Your task to perform on an android device: toggle notification dots Image 0: 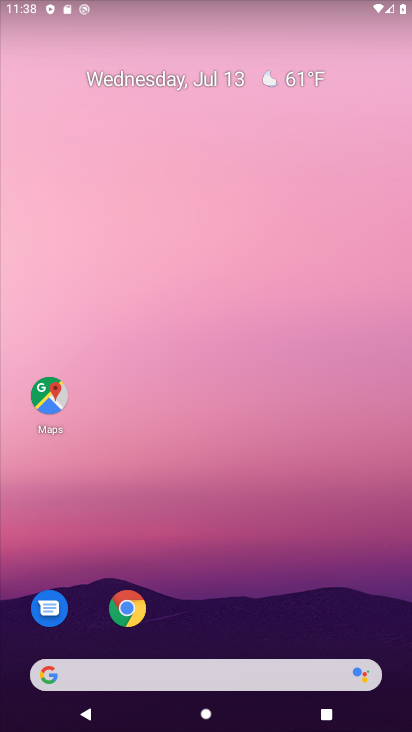
Step 0: click (152, 193)
Your task to perform on an android device: toggle notification dots Image 1: 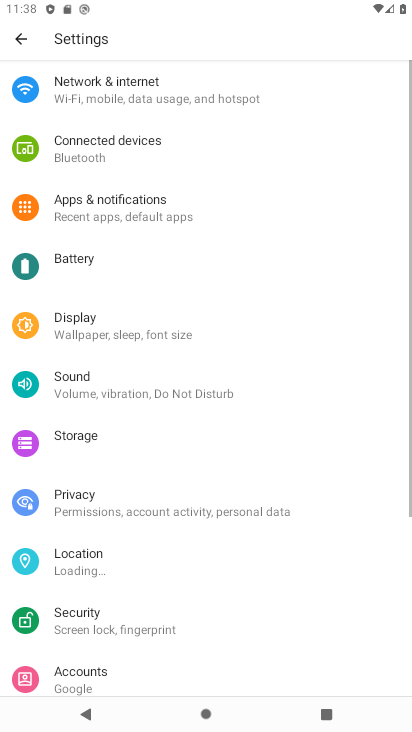
Step 1: drag from (167, 642) to (185, 338)
Your task to perform on an android device: toggle notification dots Image 2: 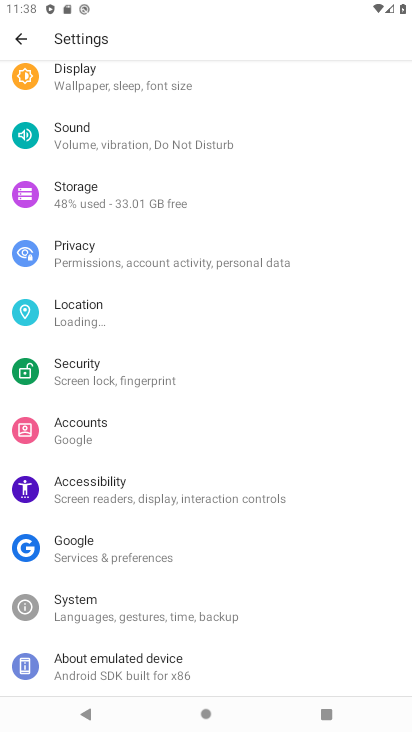
Step 2: drag from (200, 530) to (215, 331)
Your task to perform on an android device: toggle notification dots Image 3: 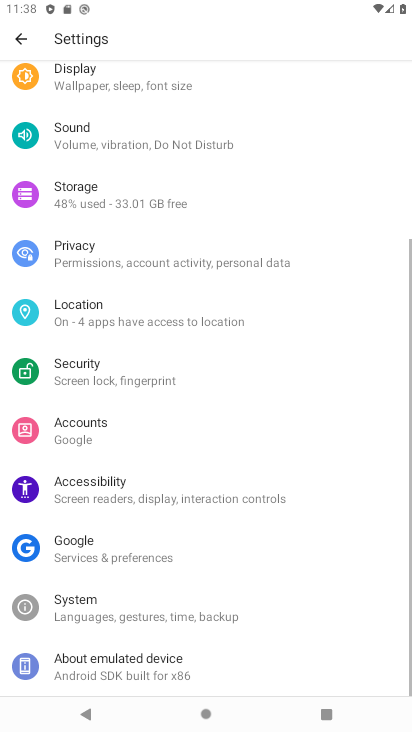
Step 3: drag from (140, 125) to (280, 592)
Your task to perform on an android device: toggle notification dots Image 4: 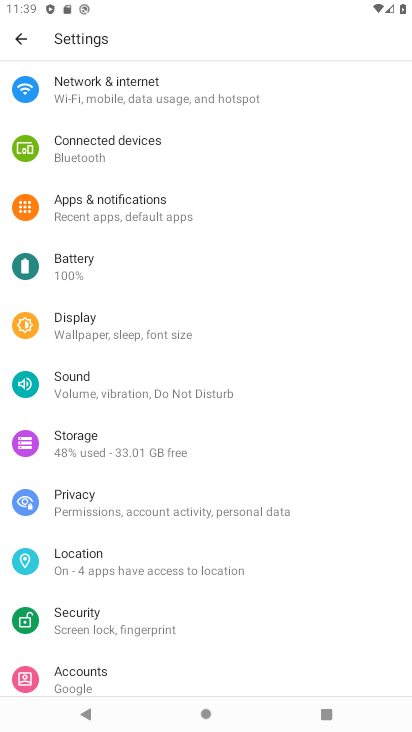
Step 4: click (166, 187)
Your task to perform on an android device: toggle notification dots Image 5: 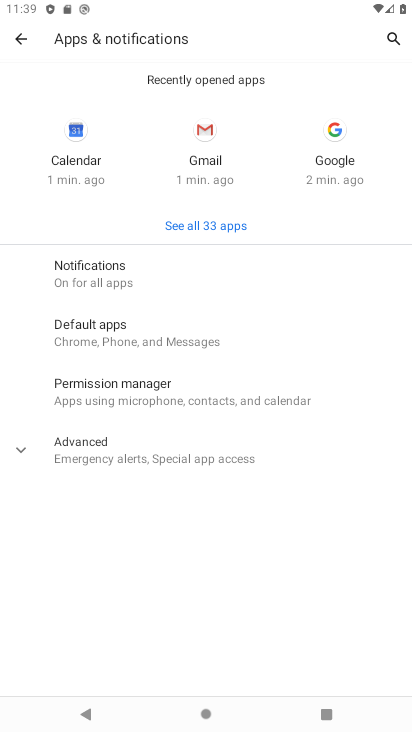
Step 5: click (173, 268)
Your task to perform on an android device: toggle notification dots Image 6: 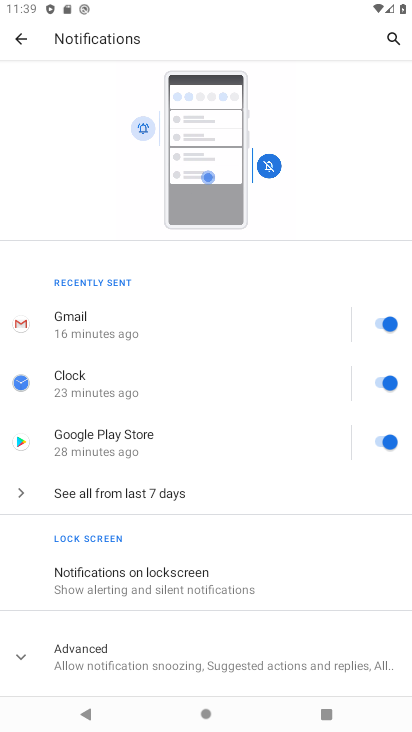
Step 6: drag from (218, 500) to (253, 257)
Your task to perform on an android device: toggle notification dots Image 7: 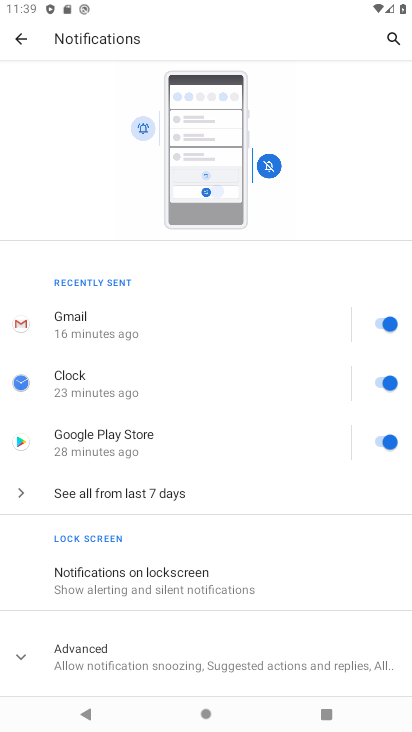
Step 7: drag from (188, 594) to (206, 373)
Your task to perform on an android device: toggle notification dots Image 8: 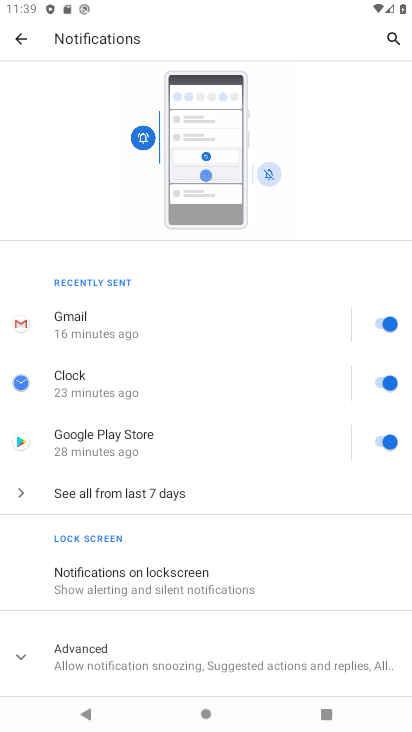
Step 8: drag from (262, 507) to (235, 262)
Your task to perform on an android device: toggle notification dots Image 9: 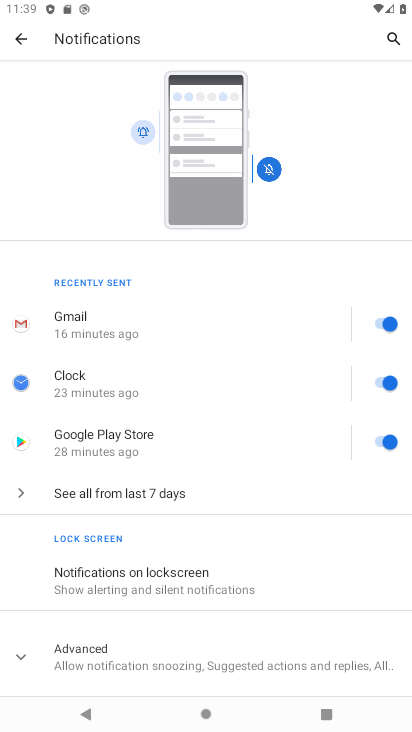
Step 9: drag from (221, 588) to (215, 253)
Your task to perform on an android device: toggle notification dots Image 10: 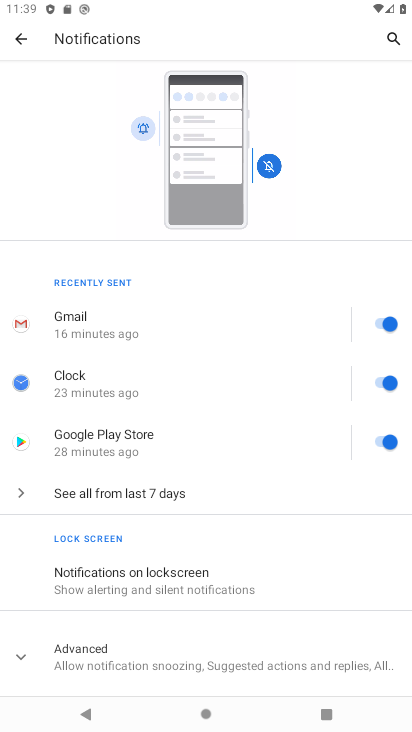
Step 10: click (87, 661)
Your task to perform on an android device: toggle notification dots Image 11: 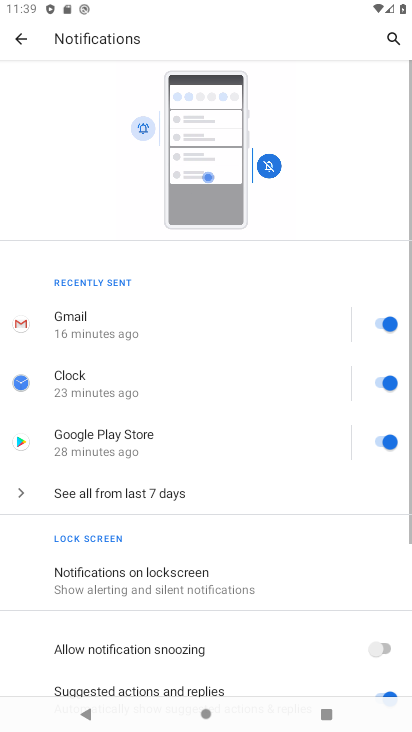
Step 11: drag from (152, 612) to (214, 133)
Your task to perform on an android device: toggle notification dots Image 12: 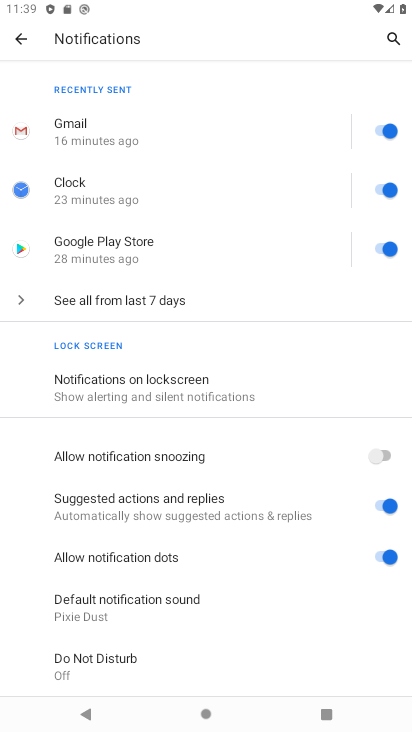
Step 12: drag from (160, 636) to (205, 310)
Your task to perform on an android device: toggle notification dots Image 13: 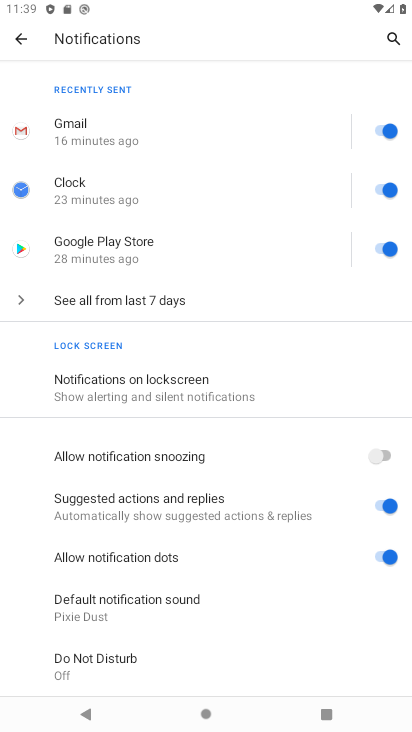
Step 13: drag from (269, 581) to (303, 263)
Your task to perform on an android device: toggle notification dots Image 14: 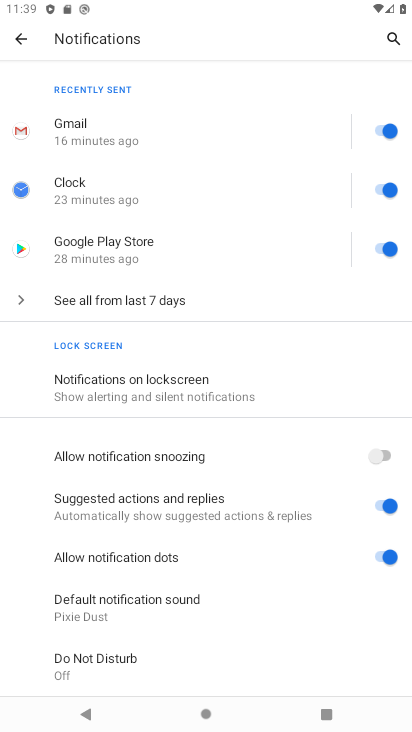
Step 14: drag from (204, 487) to (203, 427)
Your task to perform on an android device: toggle notification dots Image 15: 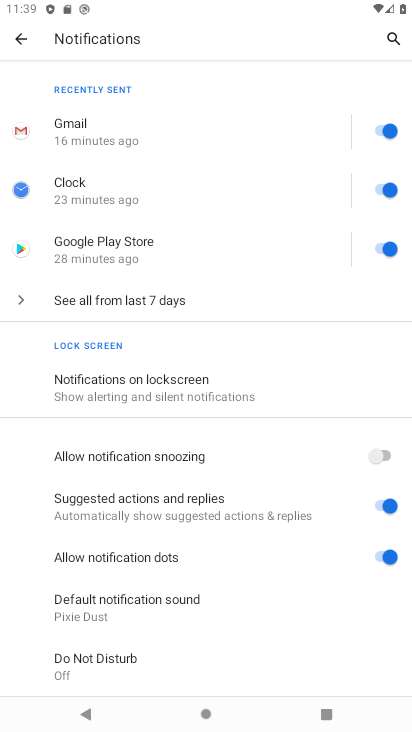
Step 15: drag from (192, 618) to (206, 352)
Your task to perform on an android device: toggle notification dots Image 16: 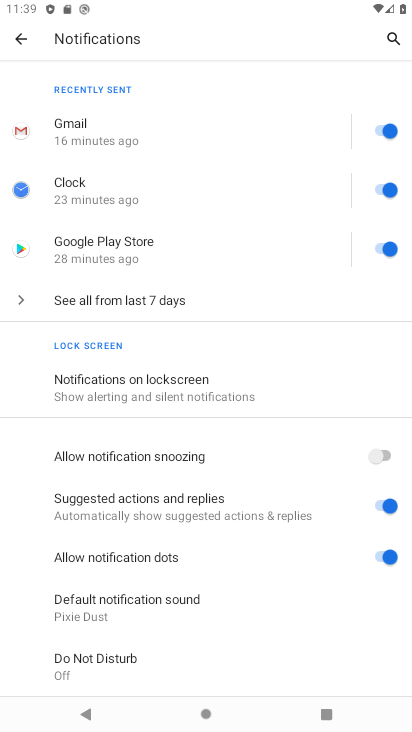
Step 16: click (221, 381)
Your task to perform on an android device: toggle notification dots Image 17: 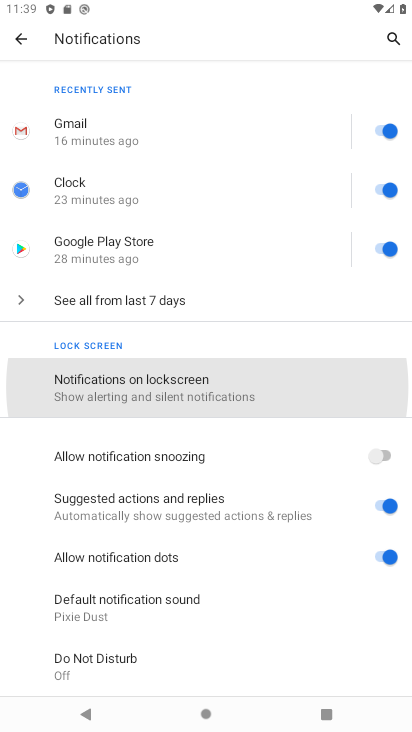
Step 17: drag from (253, 555) to (249, 473)
Your task to perform on an android device: toggle notification dots Image 18: 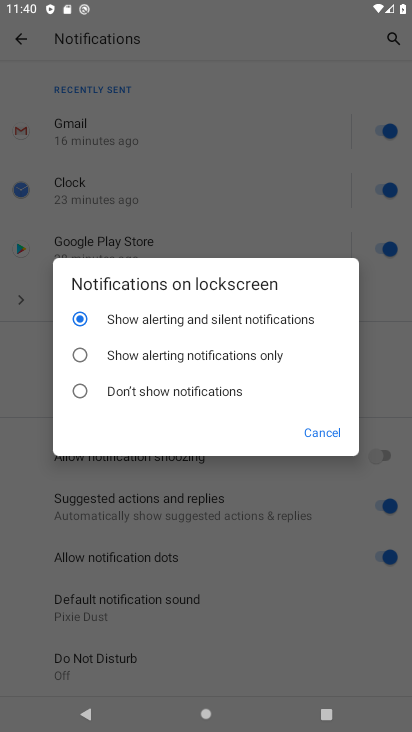
Step 18: click (328, 440)
Your task to perform on an android device: toggle notification dots Image 19: 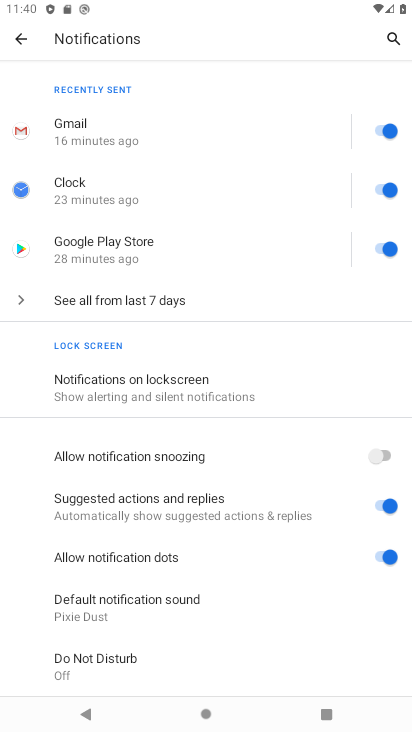
Step 19: click (388, 548)
Your task to perform on an android device: toggle notification dots Image 20: 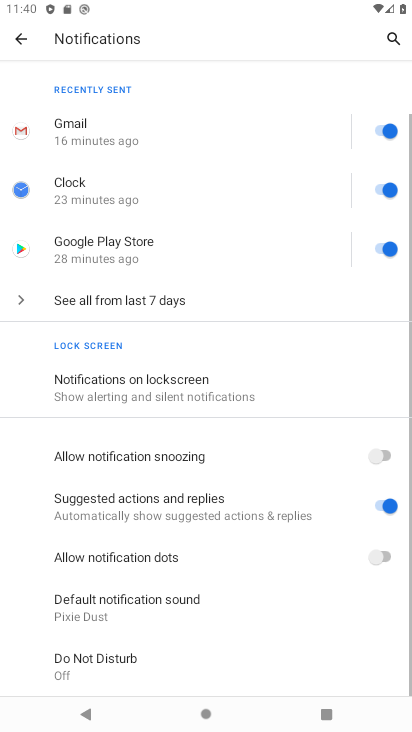
Step 20: task complete